Your task to perform on an android device: toggle show notifications on the lock screen Image 0: 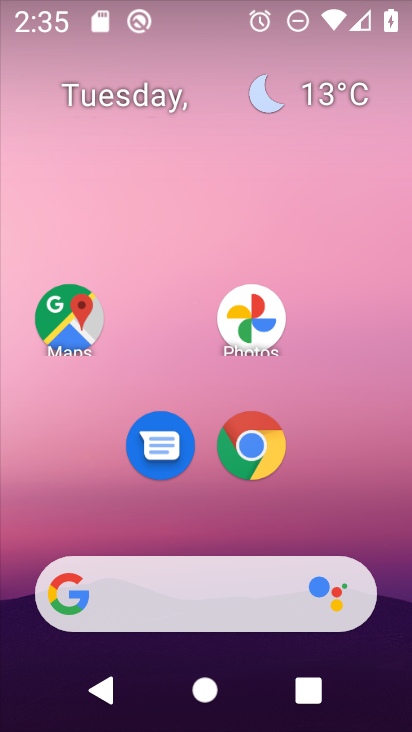
Step 0: drag from (394, 515) to (355, 93)
Your task to perform on an android device: toggle show notifications on the lock screen Image 1: 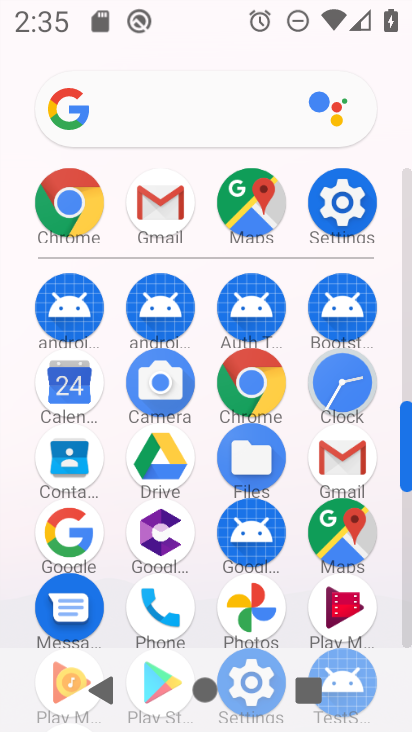
Step 1: drag from (386, 519) to (384, 345)
Your task to perform on an android device: toggle show notifications on the lock screen Image 2: 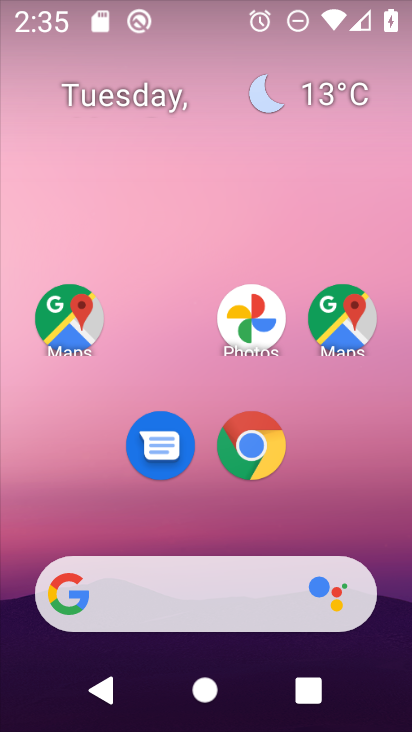
Step 2: drag from (378, 527) to (374, 162)
Your task to perform on an android device: toggle show notifications on the lock screen Image 3: 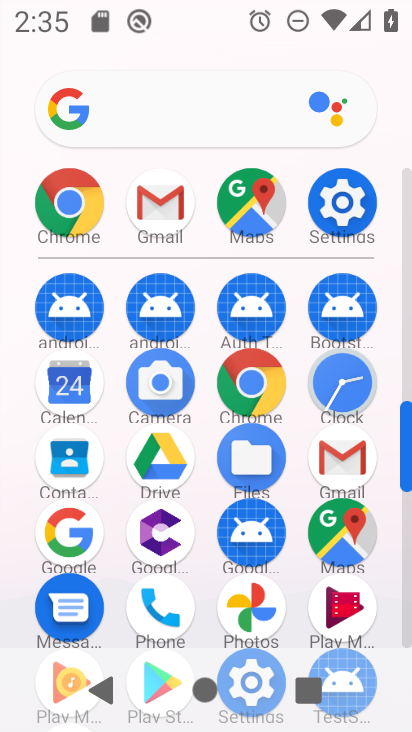
Step 3: click (358, 202)
Your task to perform on an android device: toggle show notifications on the lock screen Image 4: 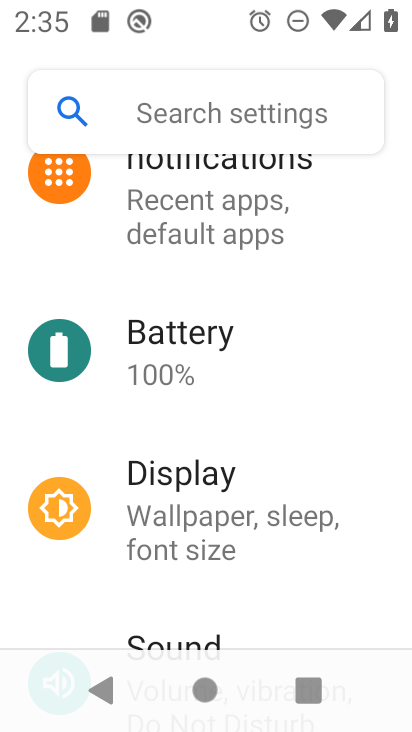
Step 4: drag from (362, 574) to (369, 453)
Your task to perform on an android device: toggle show notifications on the lock screen Image 5: 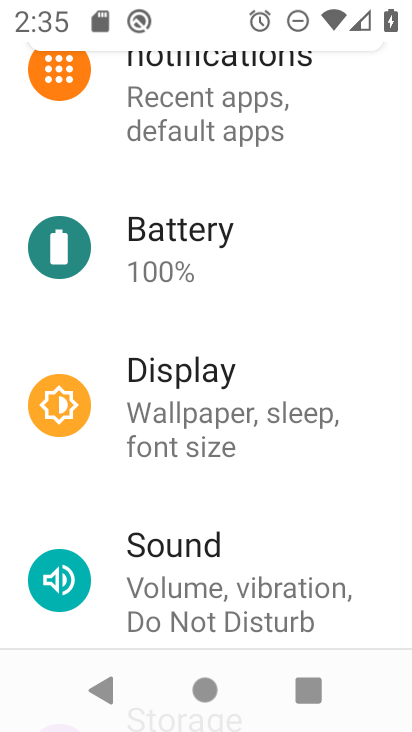
Step 5: drag from (355, 588) to (364, 416)
Your task to perform on an android device: toggle show notifications on the lock screen Image 6: 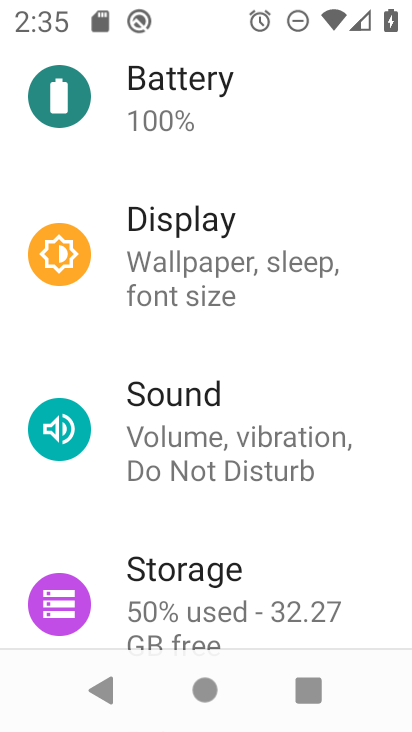
Step 6: drag from (348, 614) to (370, 431)
Your task to perform on an android device: toggle show notifications on the lock screen Image 7: 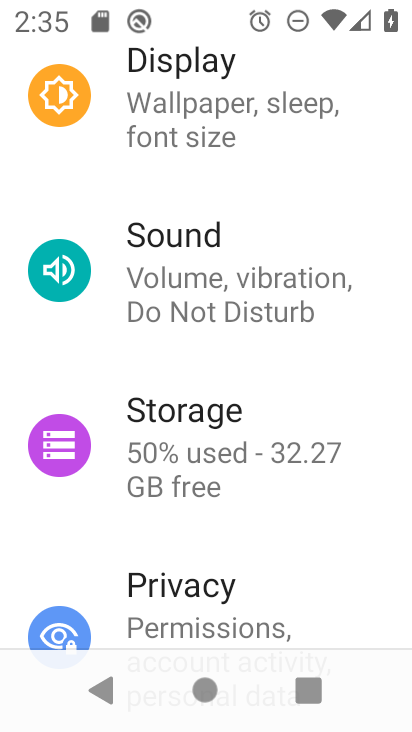
Step 7: drag from (330, 579) to (337, 431)
Your task to perform on an android device: toggle show notifications on the lock screen Image 8: 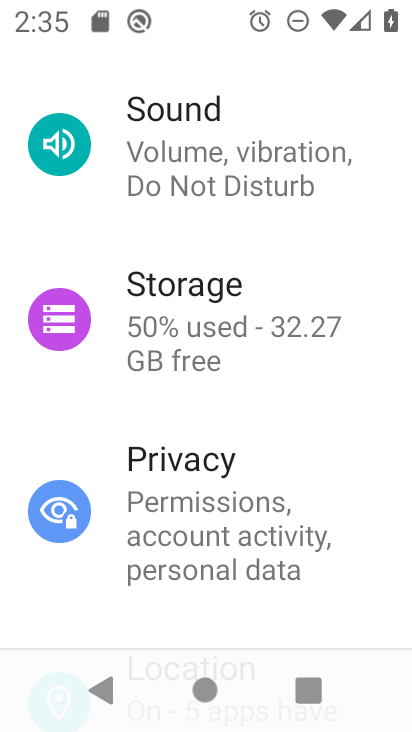
Step 8: drag from (339, 613) to (355, 459)
Your task to perform on an android device: toggle show notifications on the lock screen Image 9: 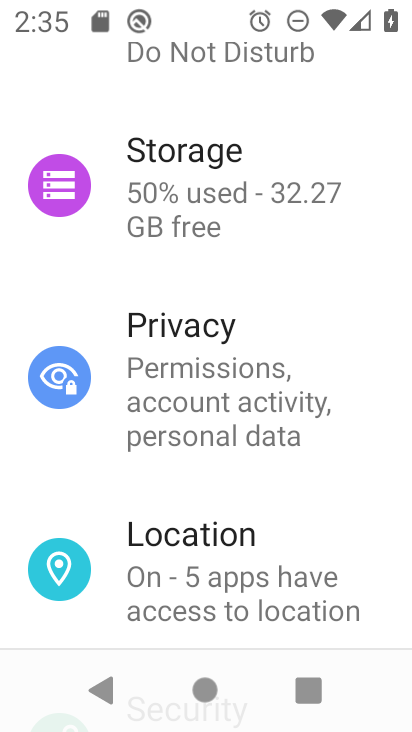
Step 9: drag from (353, 621) to (349, 412)
Your task to perform on an android device: toggle show notifications on the lock screen Image 10: 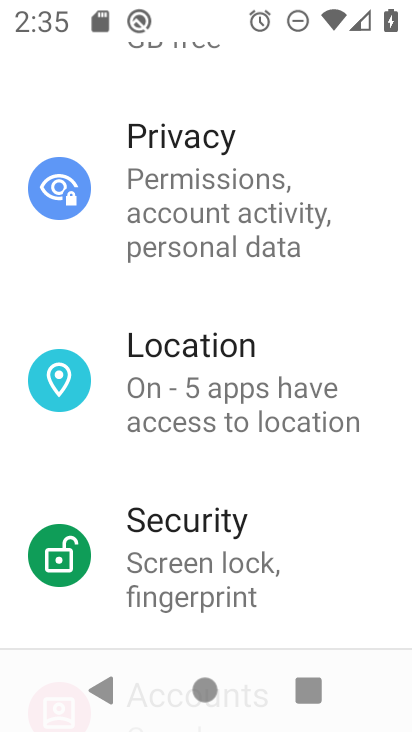
Step 10: drag from (359, 604) to (357, 462)
Your task to perform on an android device: toggle show notifications on the lock screen Image 11: 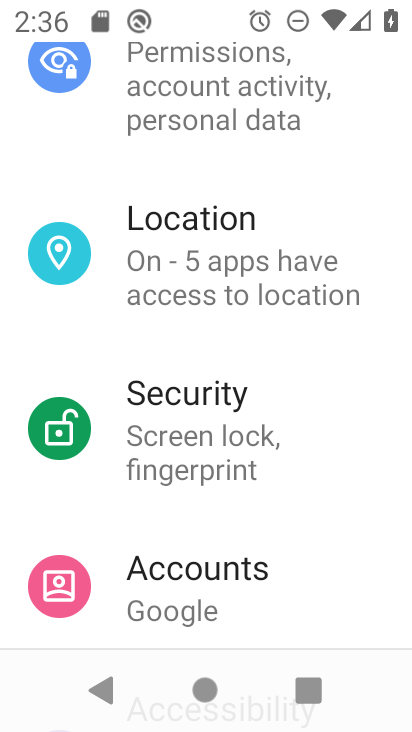
Step 11: drag from (348, 582) to (360, 415)
Your task to perform on an android device: toggle show notifications on the lock screen Image 12: 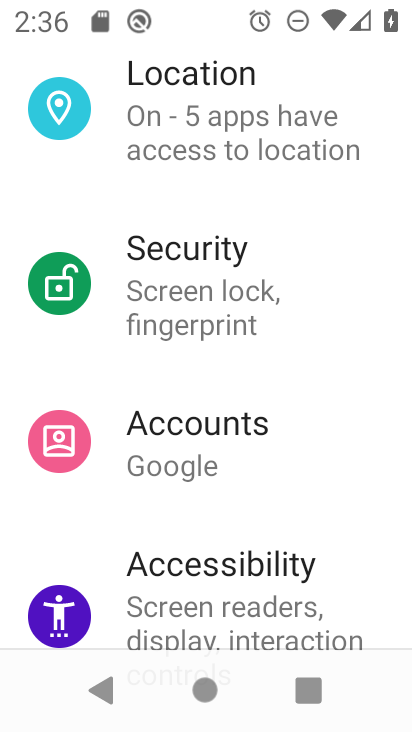
Step 12: drag from (352, 604) to (354, 440)
Your task to perform on an android device: toggle show notifications on the lock screen Image 13: 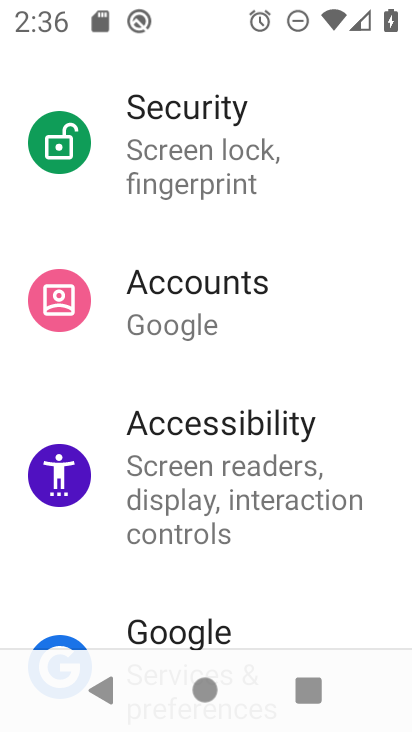
Step 13: drag from (356, 596) to (357, 431)
Your task to perform on an android device: toggle show notifications on the lock screen Image 14: 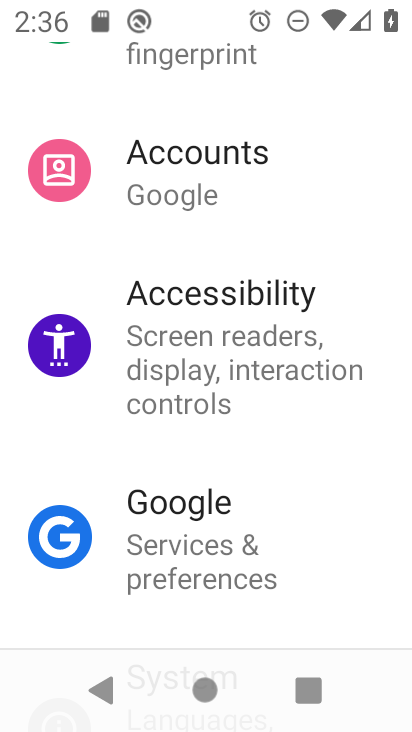
Step 14: drag from (362, 342) to (363, 445)
Your task to perform on an android device: toggle show notifications on the lock screen Image 15: 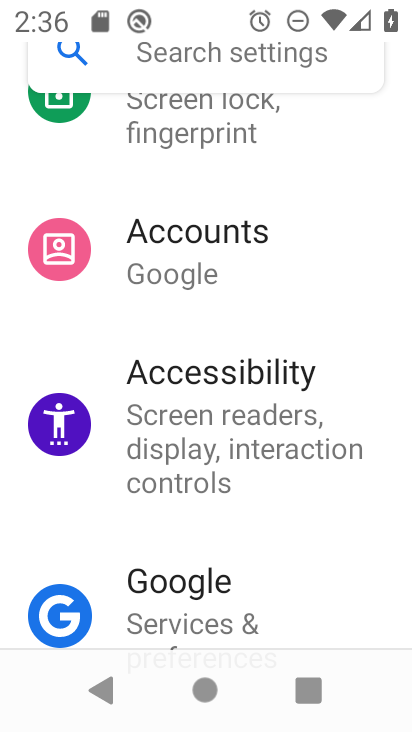
Step 15: drag from (363, 335) to (363, 438)
Your task to perform on an android device: toggle show notifications on the lock screen Image 16: 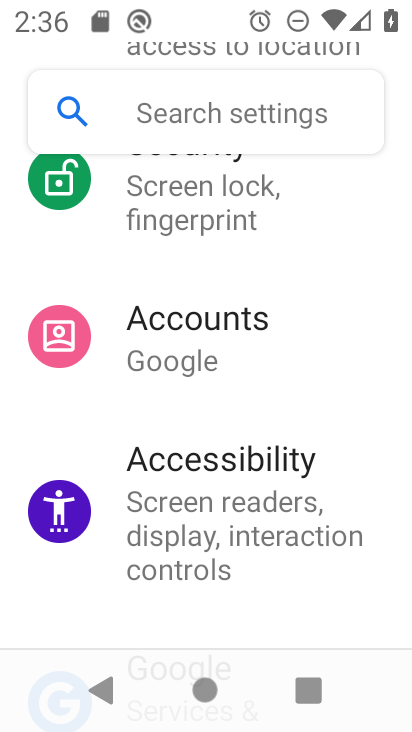
Step 16: drag from (357, 329) to (358, 437)
Your task to perform on an android device: toggle show notifications on the lock screen Image 17: 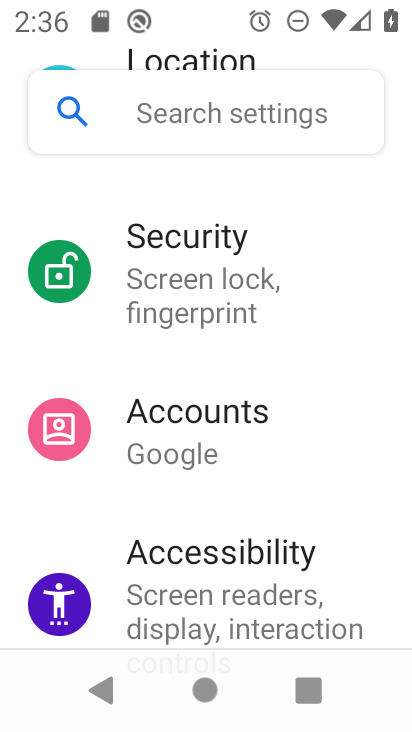
Step 17: drag from (352, 325) to (349, 432)
Your task to perform on an android device: toggle show notifications on the lock screen Image 18: 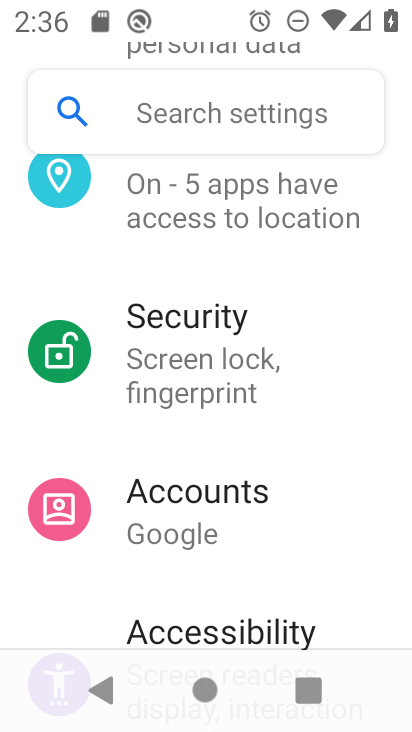
Step 18: drag from (349, 303) to (352, 438)
Your task to perform on an android device: toggle show notifications on the lock screen Image 19: 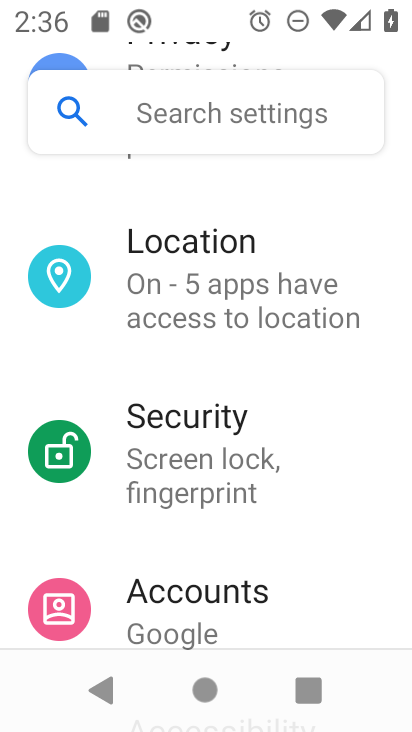
Step 19: drag from (355, 272) to (355, 417)
Your task to perform on an android device: toggle show notifications on the lock screen Image 20: 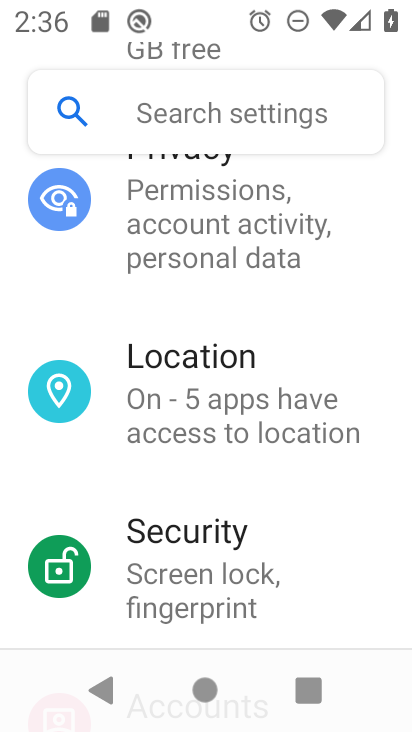
Step 20: drag from (355, 249) to (356, 444)
Your task to perform on an android device: toggle show notifications on the lock screen Image 21: 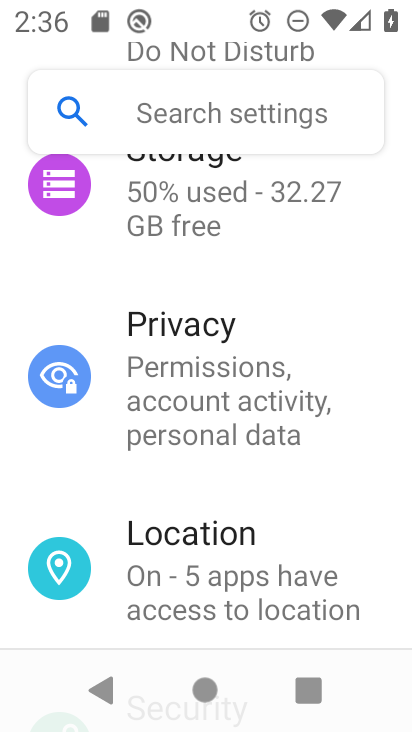
Step 21: drag from (362, 309) to (362, 440)
Your task to perform on an android device: toggle show notifications on the lock screen Image 22: 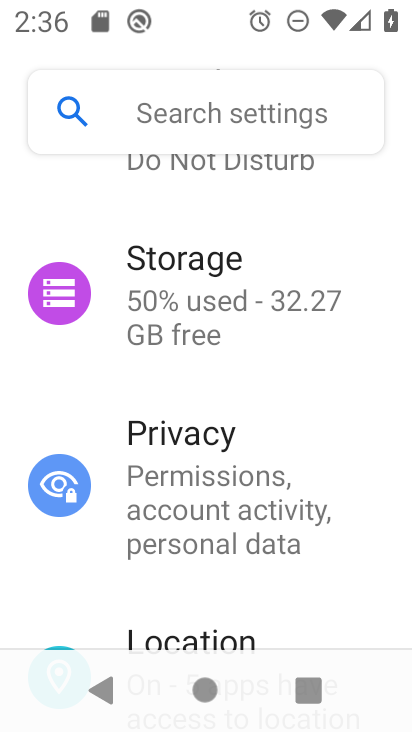
Step 22: drag from (357, 219) to (359, 368)
Your task to perform on an android device: toggle show notifications on the lock screen Image 23: 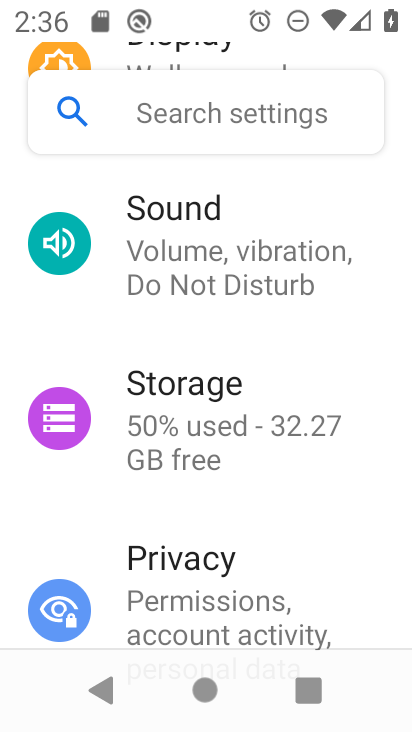
Step 23: drag from (357, 214) to (349, 386)
Your task to perform on an android device: toggle show notifications on the lock screen Image 24: 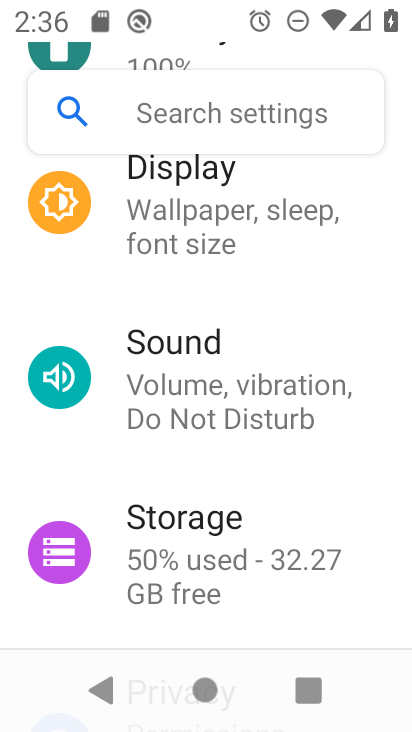
Step 24: drag from (357, 189) to (352, 348)
Your task to perform on an android device: toggle show notifications on the lock screen Image 25: 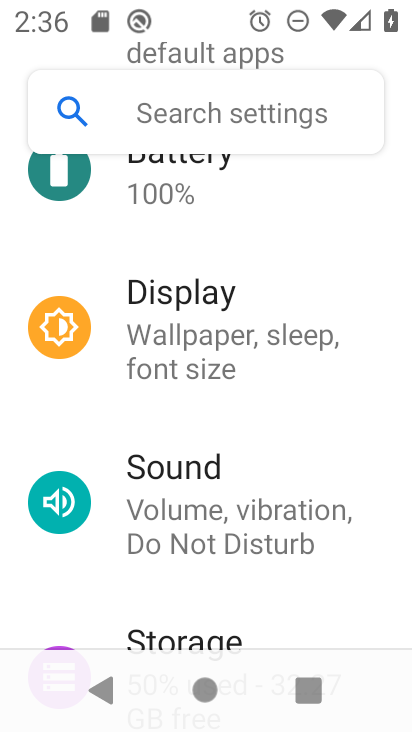
Step 25: drag from (361, 205) to (365, 384)
Your task to perform on an android device: toggle show notifications on the lock screen Image 26: 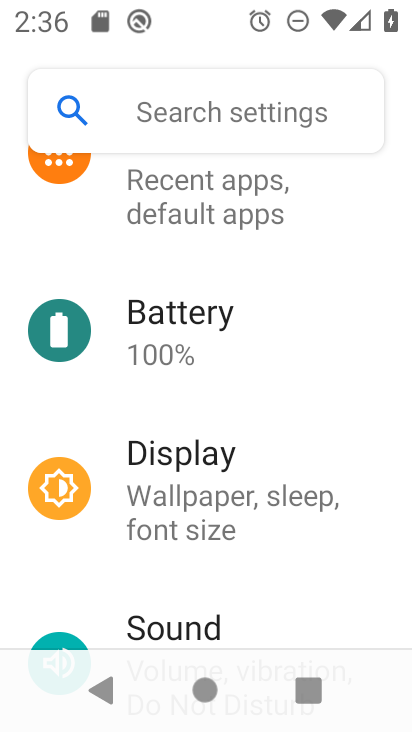
Step 26: click (270, 210)
Your task to perform on an android device: toggle show notifications on the lock screen Image 27: 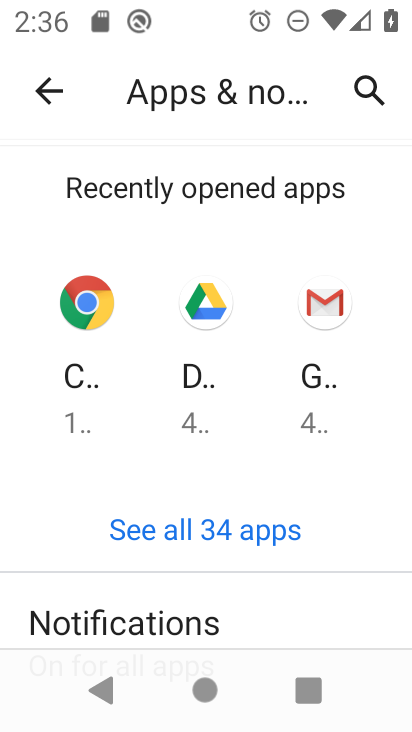
Step 27: drag from (357, 582) to (375, 421)
Your task to perform on an android device: toggle show notifications on the lock screen Image 28: 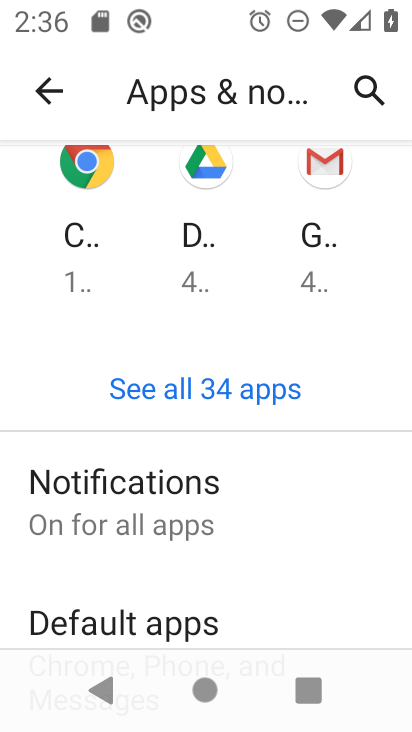
Step 28: click (200, 512)
Your task to perform on an android device: toggle show notifications on the lock screen Image 29: 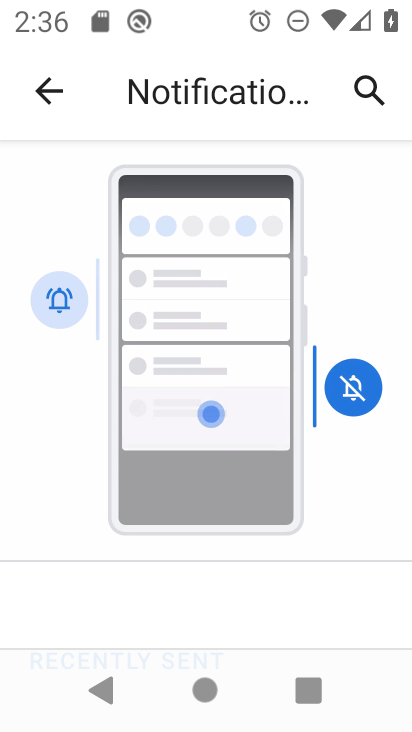
Step 29: drag from (294, 587) to (299, 420)
Your task to perform on an android device: toggle show notifications on the lock screen Image 30: 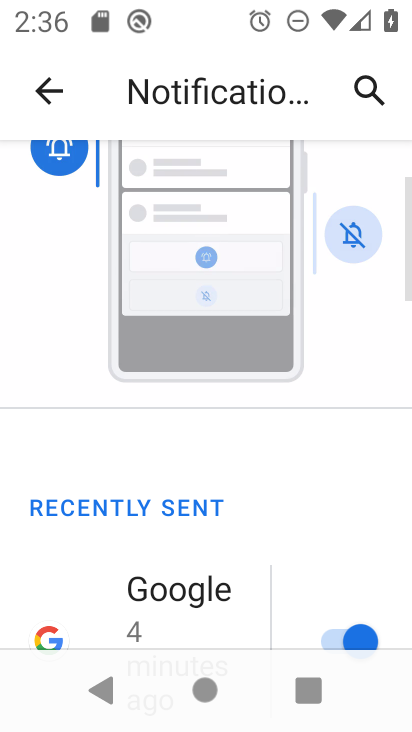
Step 30: drag from (299, 595) to (298, 424)
Your task to perform on an android device: toggle show notifications on the lock screen Image 31: 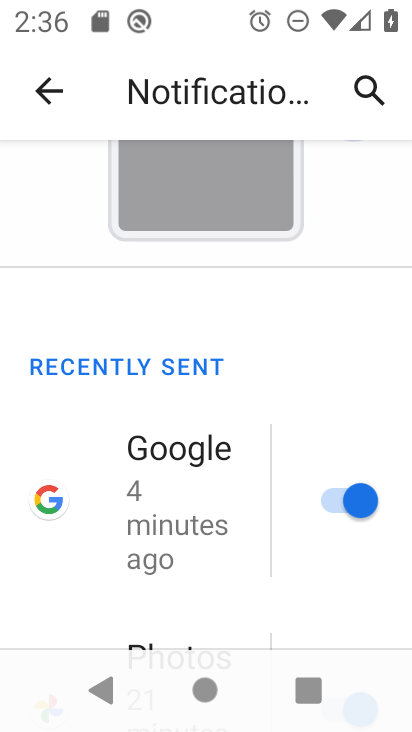
Step 31: drag from (249, 603) to (250, 469)
Your task to perform on an android device: toggle show notifications on the lock screen Image 32: 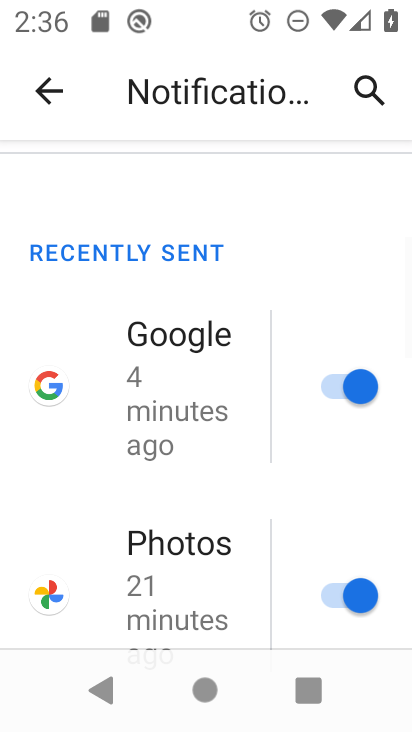
Step 32: drag from (248, 616) to (248, 452)
Your task to perform on an android device: toggle show notifications on the lock screen Image 33: 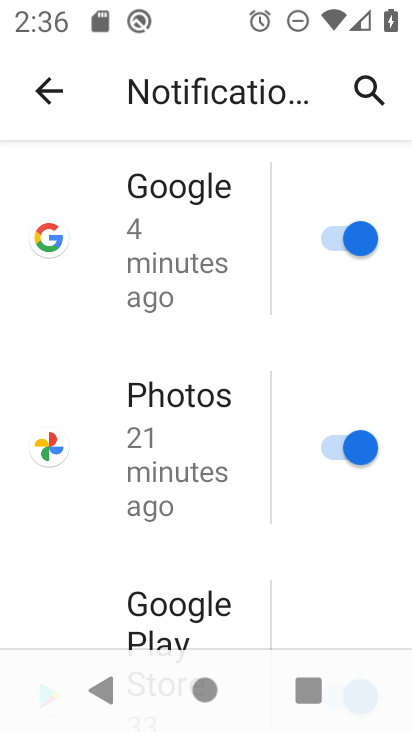
Step 33: drag from (255, 611) to (250, 422)
Your task to perform on an android device: toggle show notifications on the lock screen Image 34: 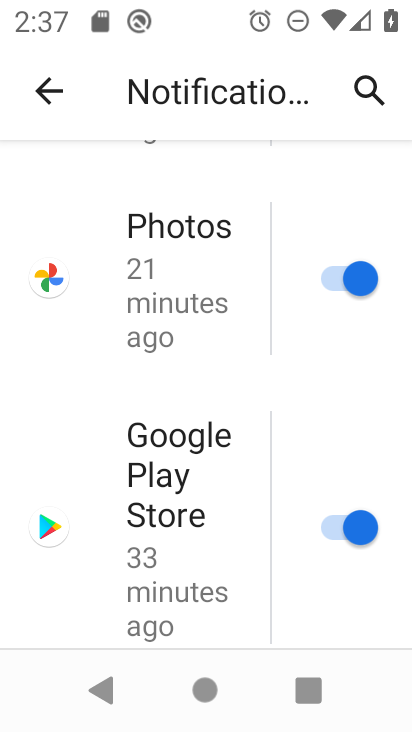
Step 34: drag from (242, 591) to (245, 451)
Your task to perform on an android device: toggle show notifications on the lock screen Image 35: 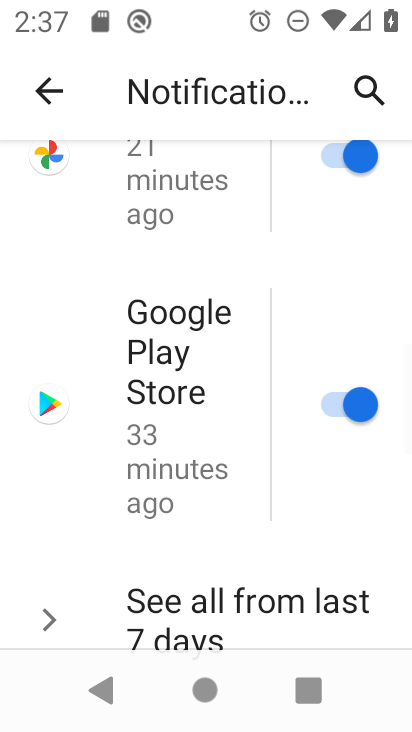
Step 35: drag from (246, 578) to (251, 388)
Your task to perform on an android device: toggle show notifications on the lock screen Image 36: 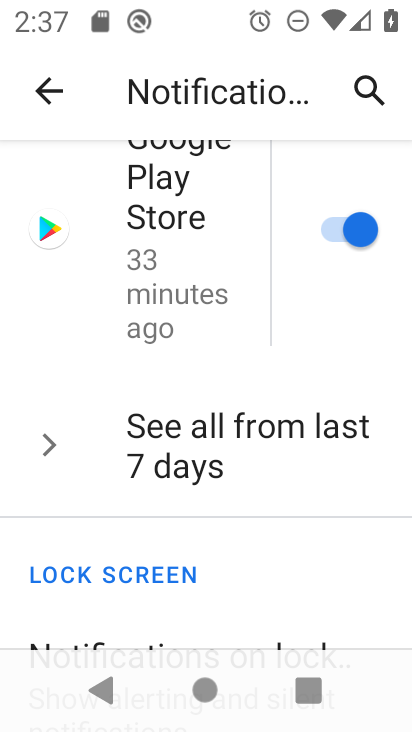
Step 36: drag from (260, 598) to (260, 449)
Your task to perform on an android device: toggle show notifications on the lock screen Image 37: 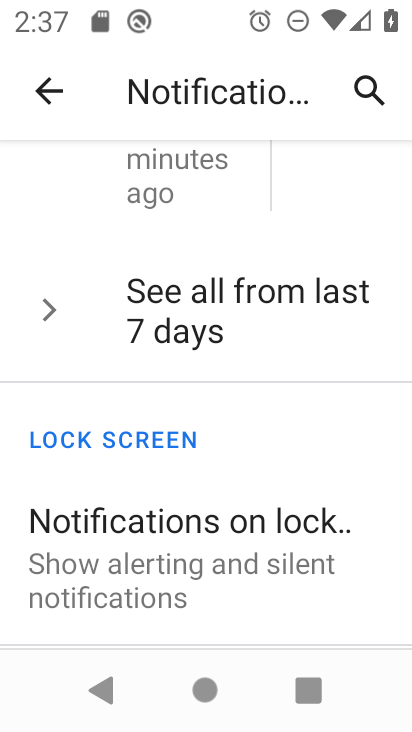
Step 37: drag from (273, 602) to (276, 473)
Your task to perform on an android device: toggle show notifications on the lock screen Image 38: 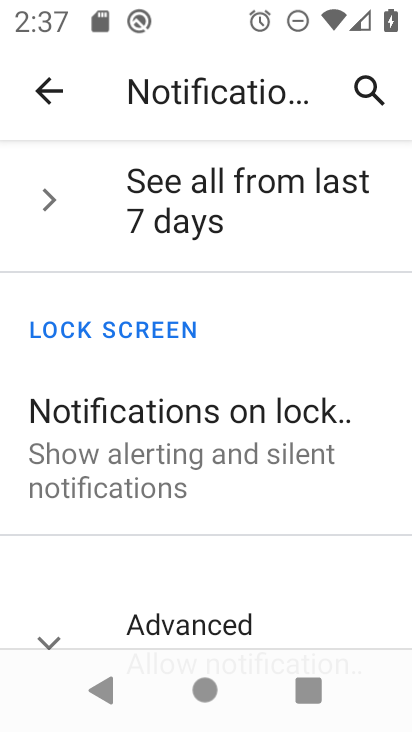
Step 38: click (271, 462)
Your task to perform on an android device: toggle show notifications on the lock screen Image 39: 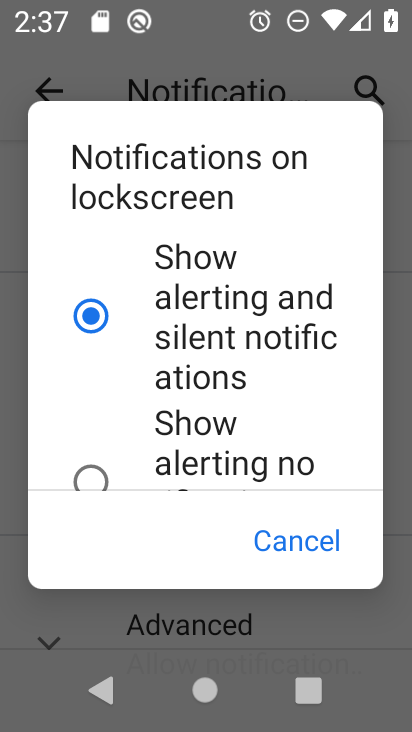
Step 39: click (238, 463)
Your task to perform on an android device: toggle show notifications on the lock screen Image 40: 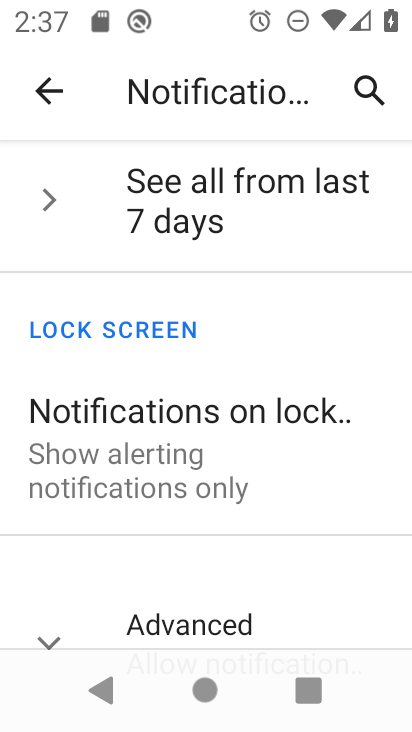
Step 40: task complete